Your task to perform on an android device: check storage Image 0: 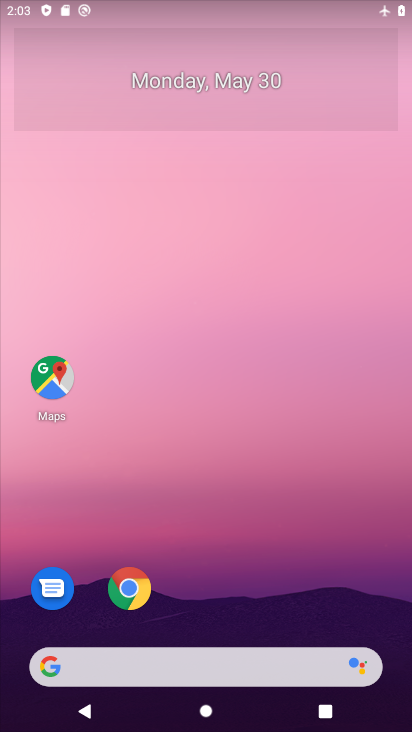
Step 0: drag from (240, 577) to (251, 271)
Your task to perform on an android device: check storage Image 1: 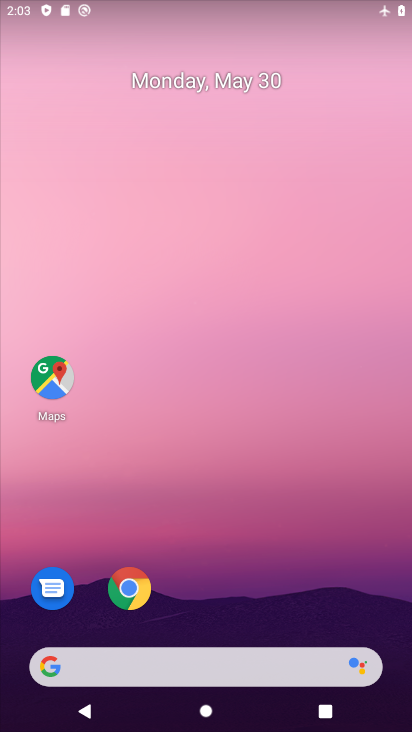
Step 1: drag from (218, 622) to (219, 315)
Your task to perform on an android device: check storage Image 2: 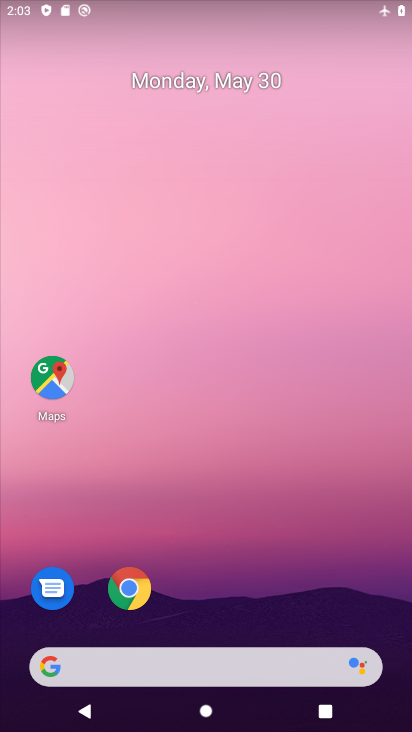
Step 2: drag from (207, 559) to (215, 229)
Your task to perform on an android device: check storage Image 3: 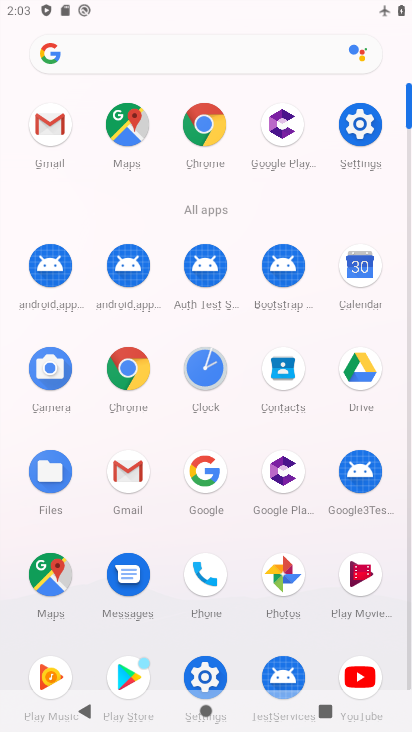
Step 3: click (356, 121)
Your task to perform on an android device: check storage Image 4: 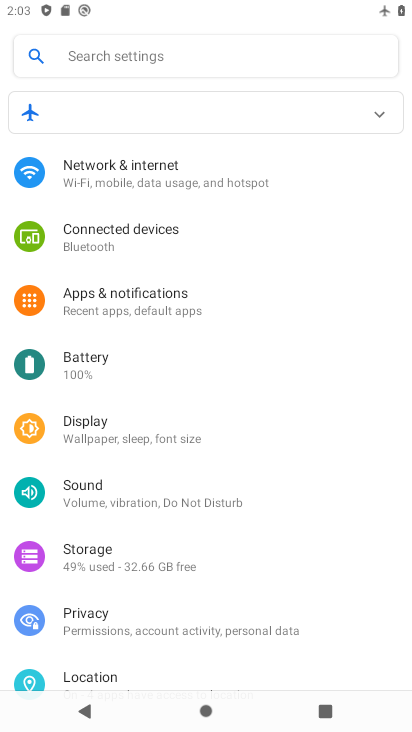
Step 4: click (121, 559)
Your task to perform on an android device: check storage Image 5: 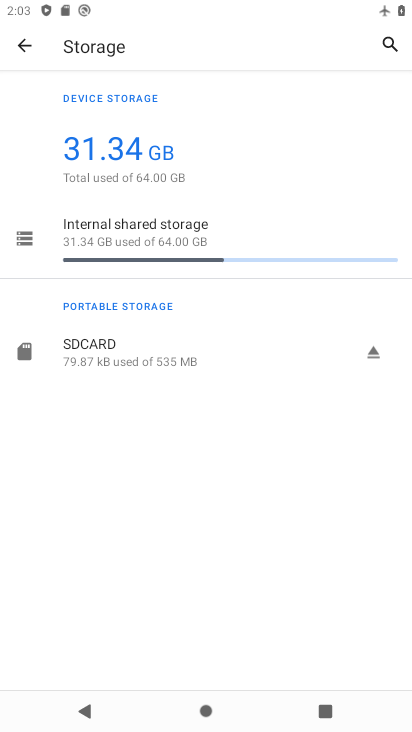
Step 5: task complete